Your task to perform on an android device: Go to Maps Image 0: 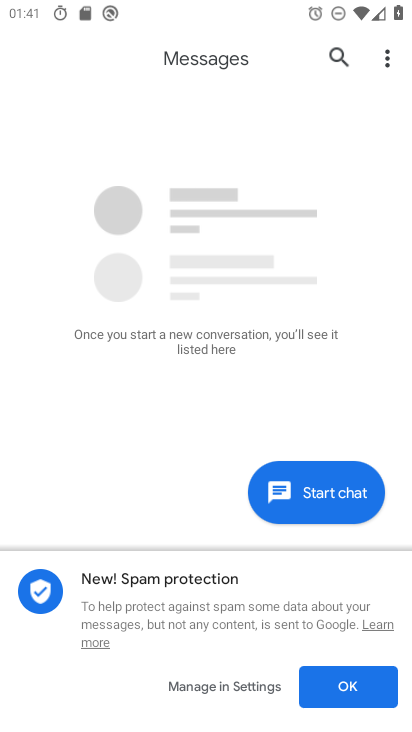
Step 0: press home button
Your task to perform on an android device: Go to Maps Image 1: 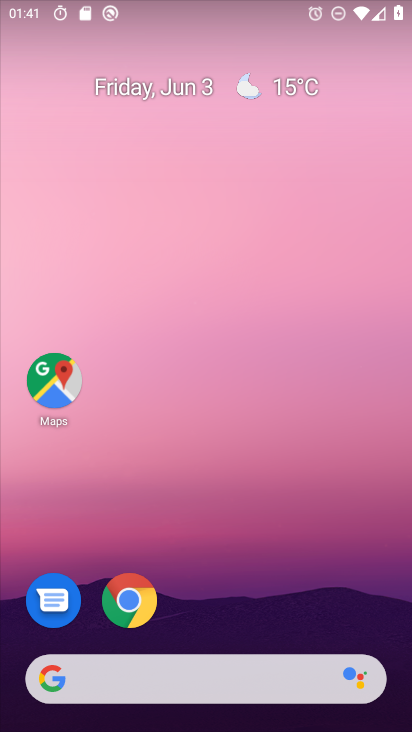
Step 1: click (60, 384)
Your task to perform on an android device: Go to Maps Image 2: 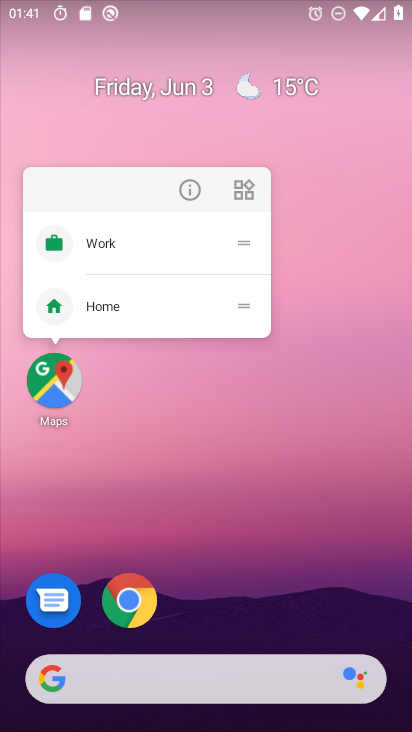
Step 2: click (60, 384)
Your task to perform on an android device: Go to Maps Image 3: 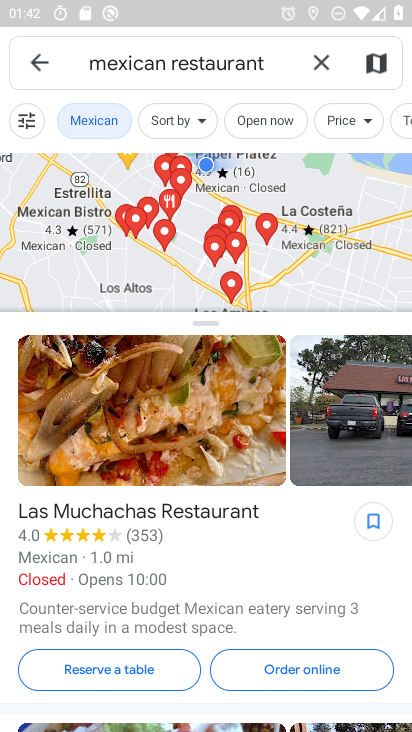
Step 3: task complete